Your task to perform on an android device: set default search engine in the chrome app Image 0: 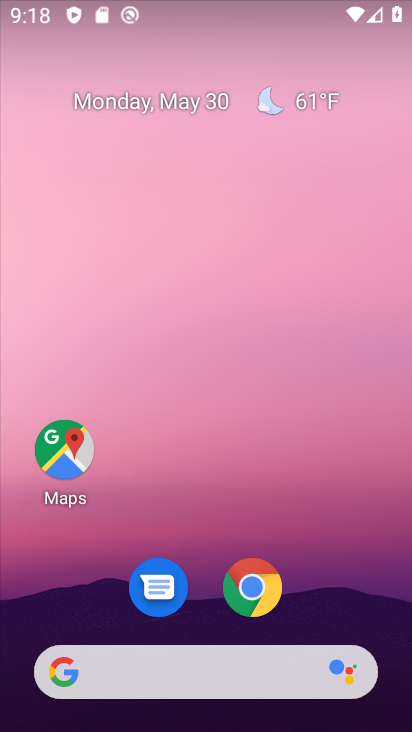
Step 0: click (246, 567)
Your task to perform on an android device: set default search engine in the chrome app Image 1: 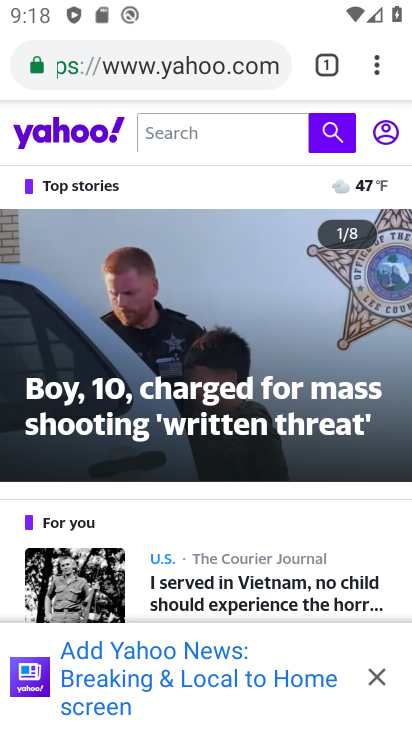
Step 1: click (370, 73)
Your task to perform on an android device: set default search engine in the chrome app Image 2: 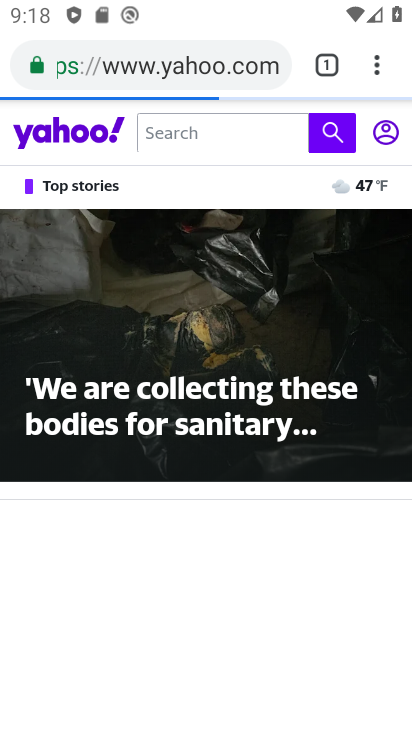
Step 2: drag from (382, 58) to (170, 645)
Your task to perform on an android device: set default search engine in the chrome app Image 3: 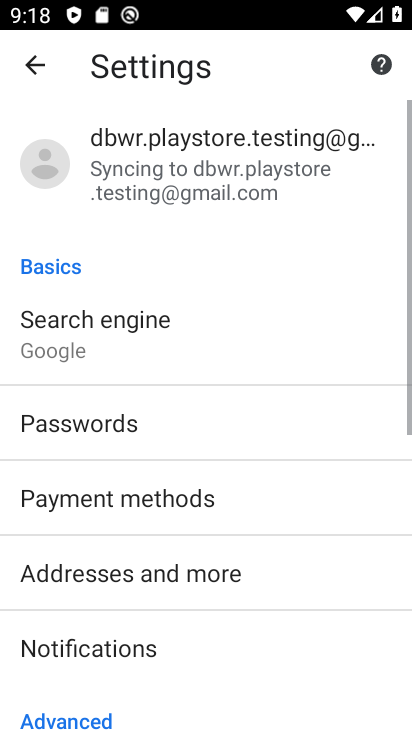
Step 3: click (110, 348)
Your task to perform on an android device: set default search engine in the chrome app Image 4: 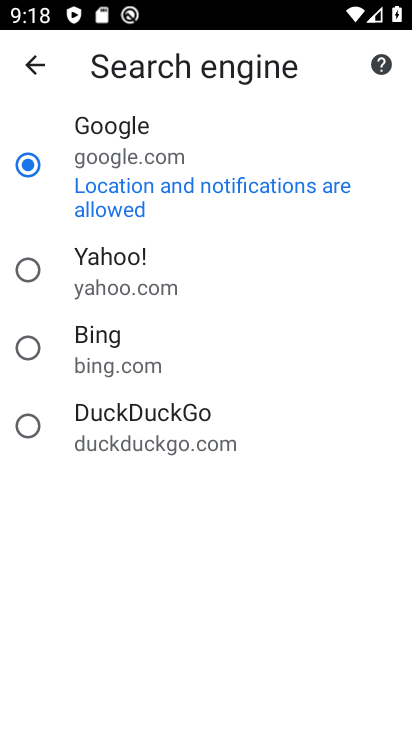
Step 4: task complete